Your task to perform on an android device: manage bookmarks in the chrome app Image 0: 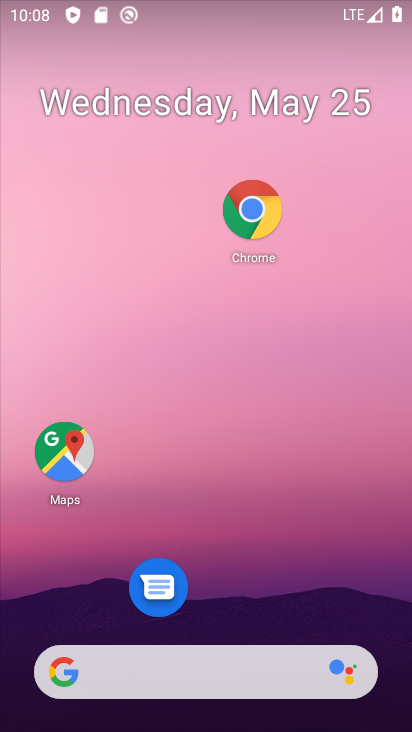
Step 0: click (256, 204)
Your task to perform on an android device: manage bookmarks in the chrome app Image 1: 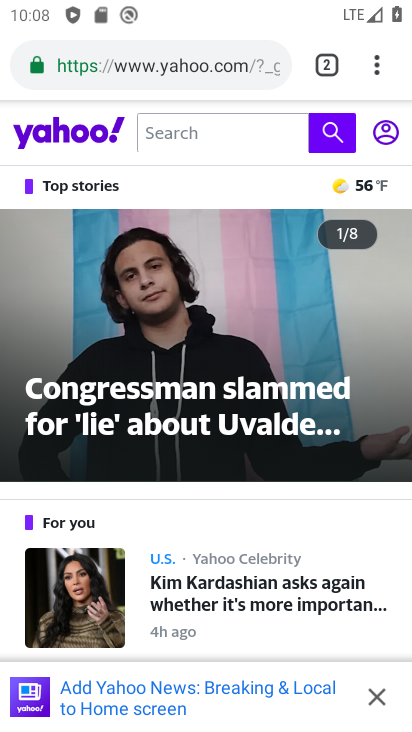
Step 1: click (384, 75)
Your task to perform on an android device: manage bookmarks in the chrome app Image 2: 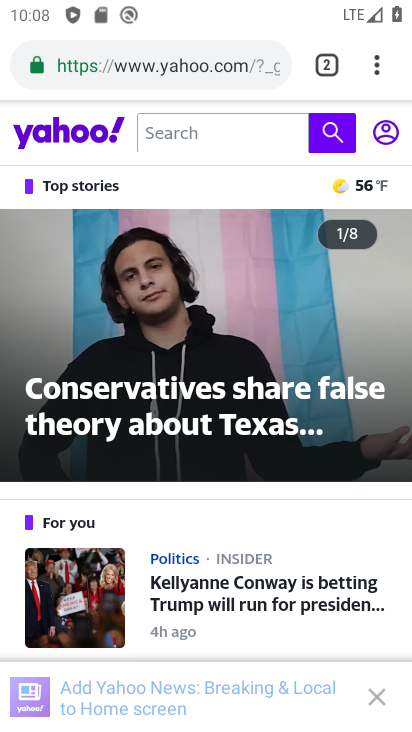
Step 2: click (377, 66)
Your task to perform on an android device: manage bookmarks in the chrome app Image 3: 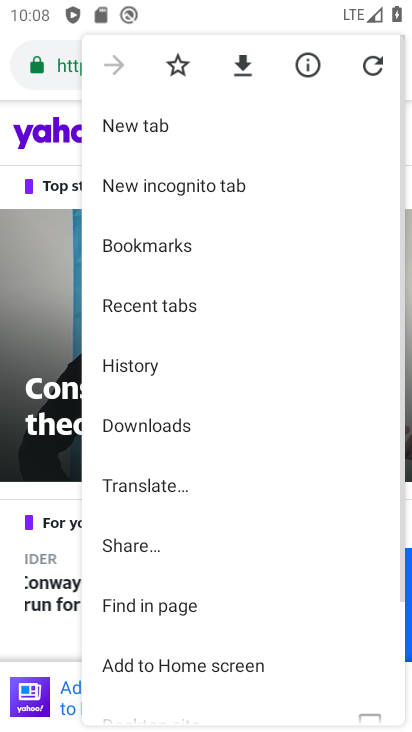
Step 3: click (188, 255)
Your task to perform on an android device: manage bookmarks in the chrome app Image 4: 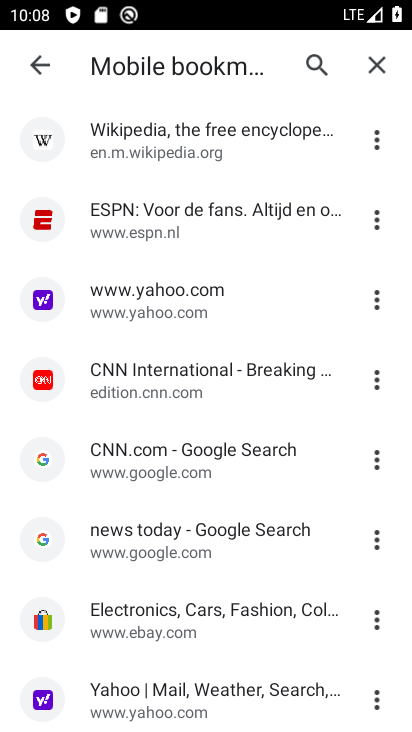
Step 4: click (383, 133)
Your task to perform on an android device: manage bookmarks in the chrome app Image 5: 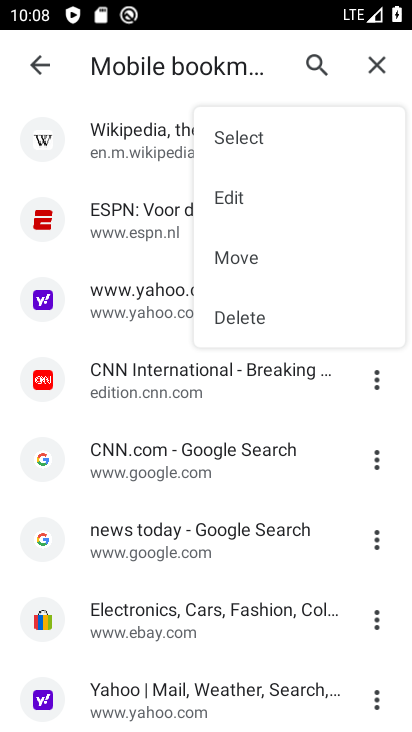
Step 5: click (243, 132)
Your task to perform on an android device: manage bookmarks in the chrome app Image 6: 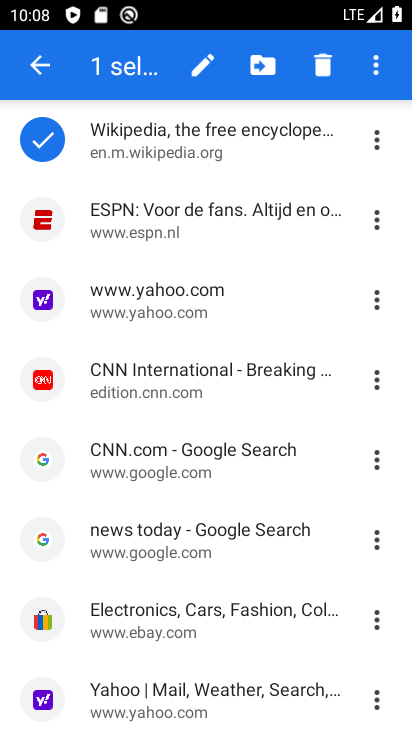
Step 6: drag from (69, 215) to (46, 306)
Your task to perform on an android device: manage bookmarks in the chrome app Image 7: 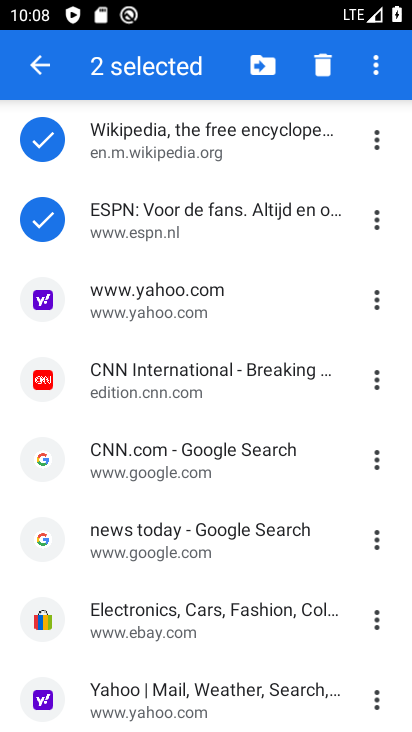
Step 7: click (41, 390)
Your task to perform on an android device: manage bookmarks in the chrome app Image 8: 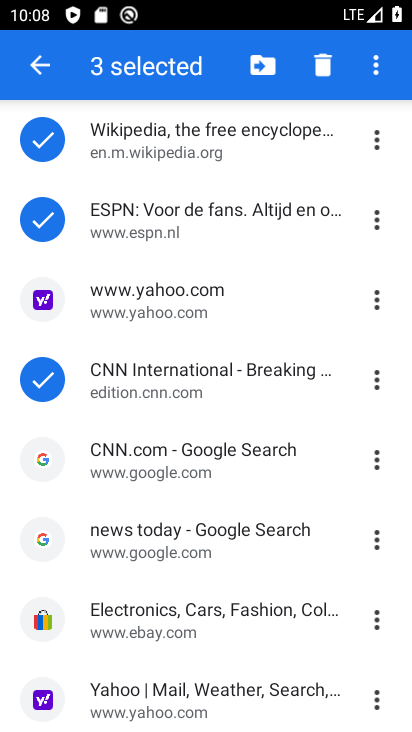
Step 8: click (40, 470)
Your task to perform on an android device: manage bookmarks in the chrome app Image 9: 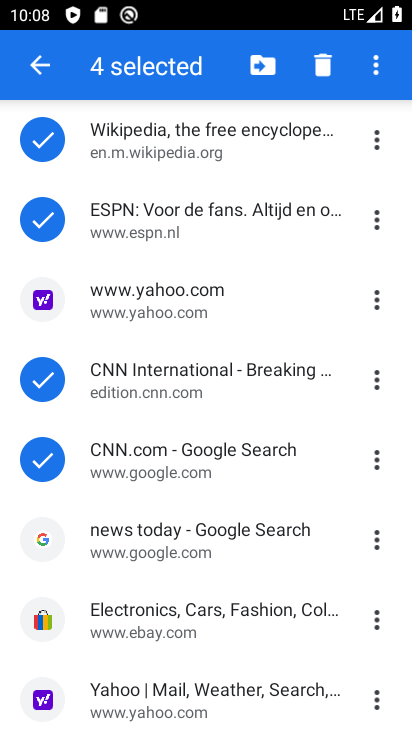
Step 9: click (53, 292)
Your task to perform on an android device: manage bookmarks in the chrome app Image 10: 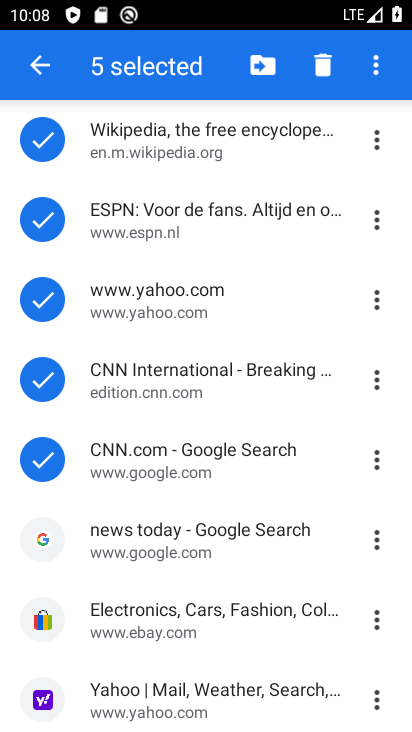
Step 10: click (40, 528)
Your task to perform on an android device: manage bookmarks in the chrome app Image 11: 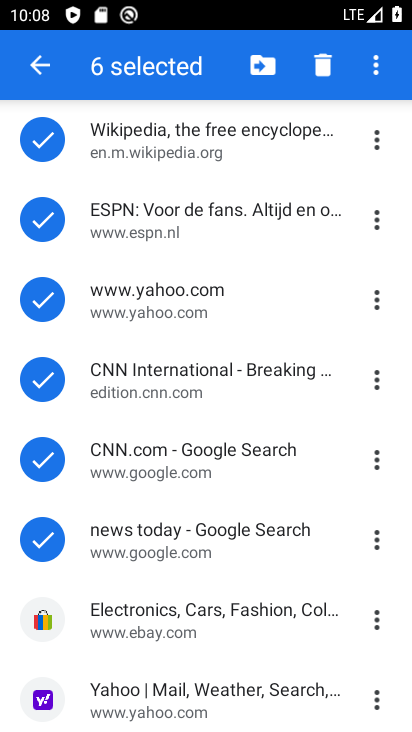
Step 11: click (39, 614)
Your task to perform on an android device: manage bookmarks in the chrome app Image 12: 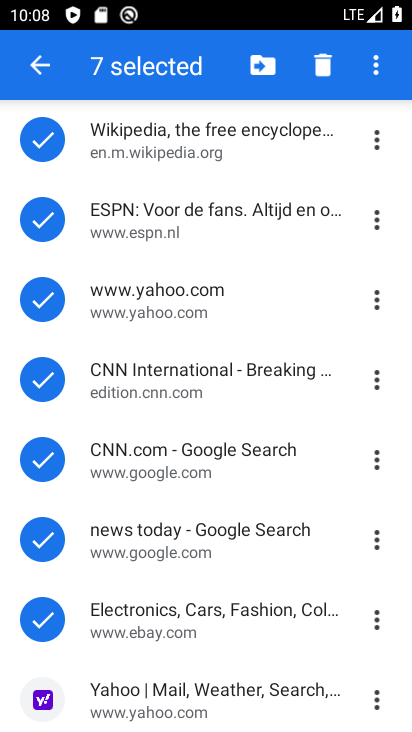
Step 12: drag from (48, 638) to (109, 269)
Your task to perform on an android device: manage bookmarks in the chrome app Image 13: 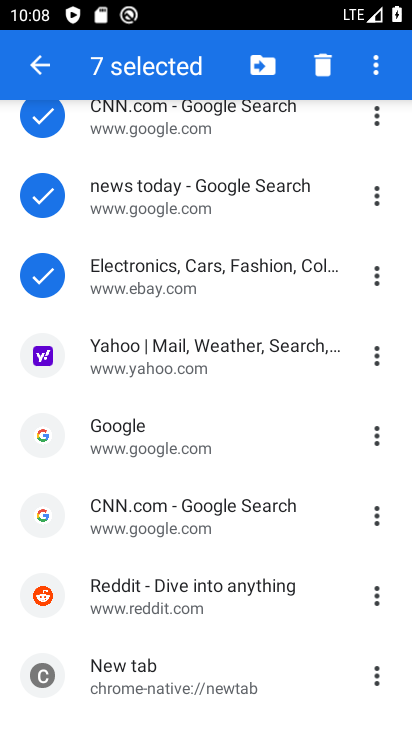
Step 13: click (42, 433)
Your task to perform on an android device: manage bookmarks in the chrome app Image 14: 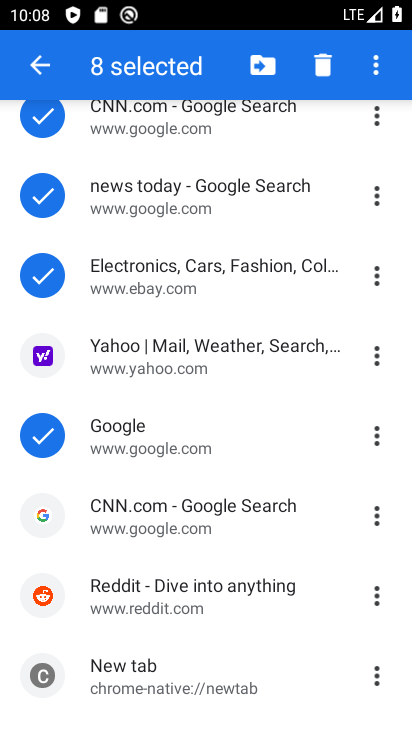
Step 14: click (36, 521)
Your task to perform on an android device: manage bookmarks in the chrome app Image 15: 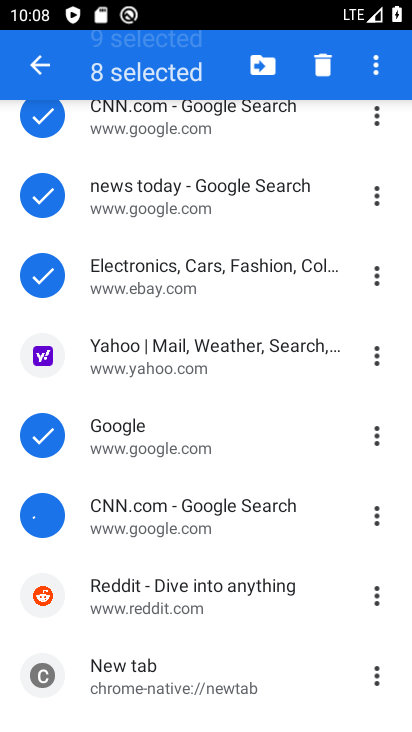
Step 15: click (35, 605)
Your task to perform on an android device: manage bookmarks in the chrome app Image 16: 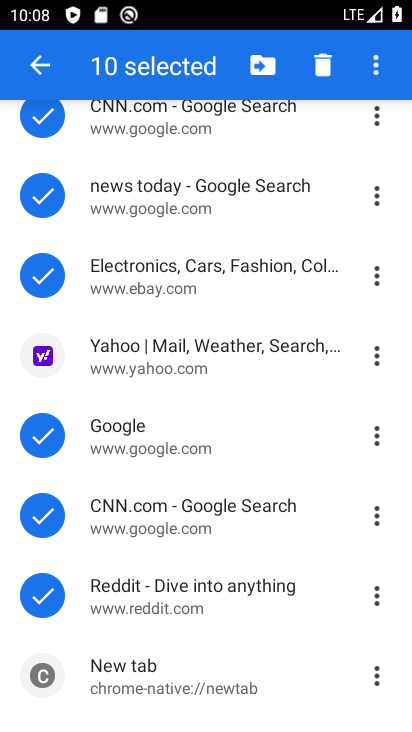
Step 16: click (38, 680)
Your task to perform on an android device: manage bookmarks in the chrome app Image 17: 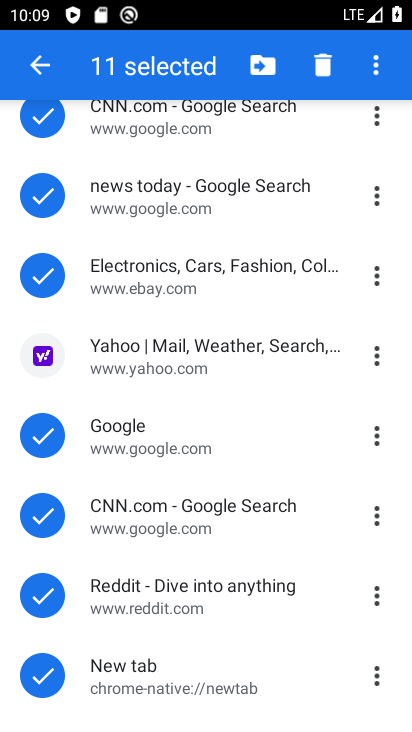
Step 17: click (257, 72)
Your task to perform on an android device: manage bookmarks in the chrome app Image 18: 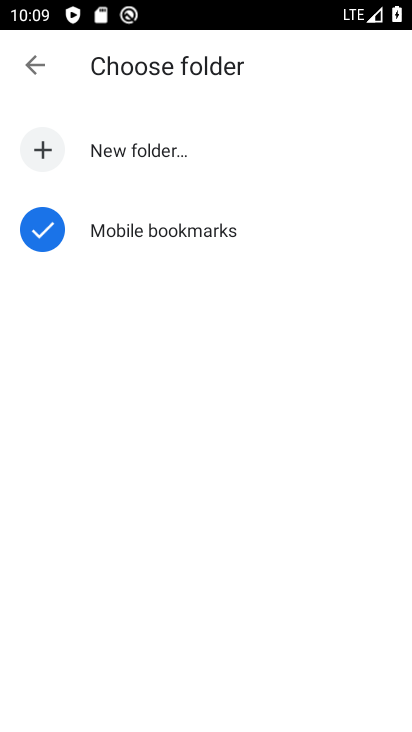
Step 18: click (149, 150)
Your task to perform on an android device: manage bookmarks in the chrome app Image 19: 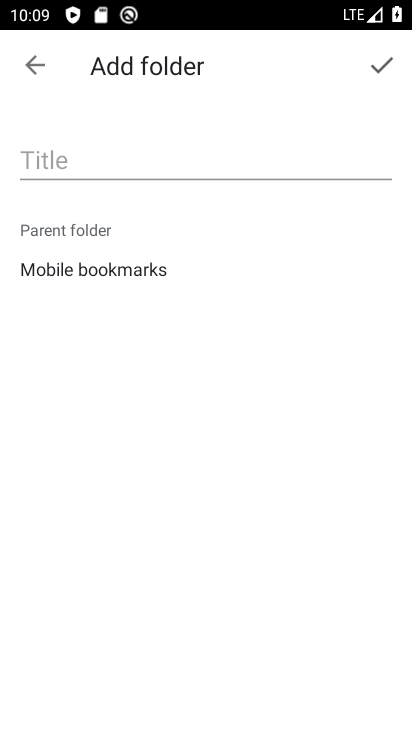
Step 19: click (77, 162)
Your task to perform on an android device: manage bookmarks in the chrome app Image 20: 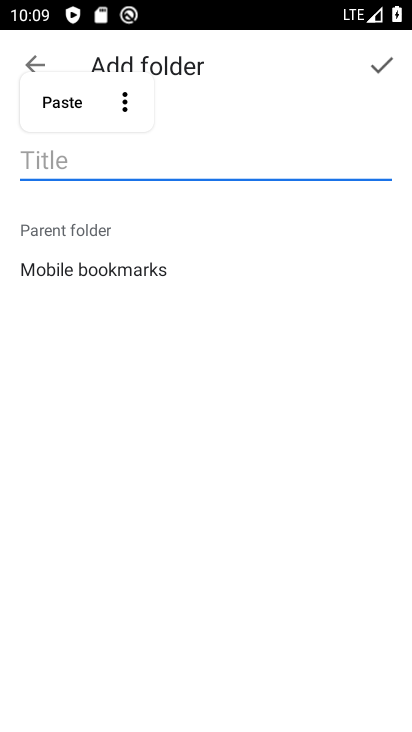
Step 20: type "roses"
Your task to perform on an android device: manage bookmarks in the chrome app Image 21: 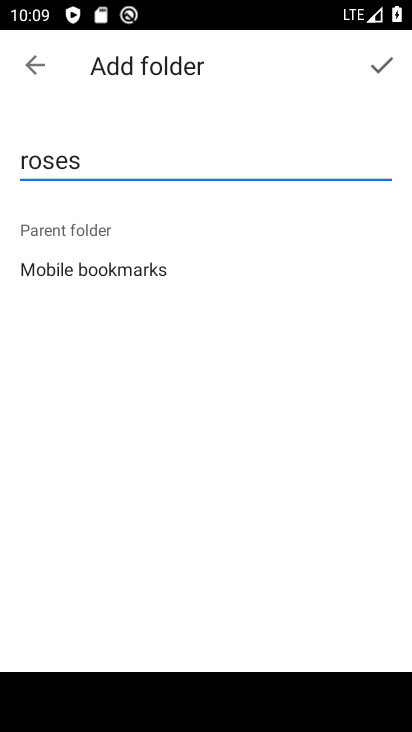
Step 21: click (387, 65)
Your task to perform on an android device: manage bookmarks in the chrome app Image 22: 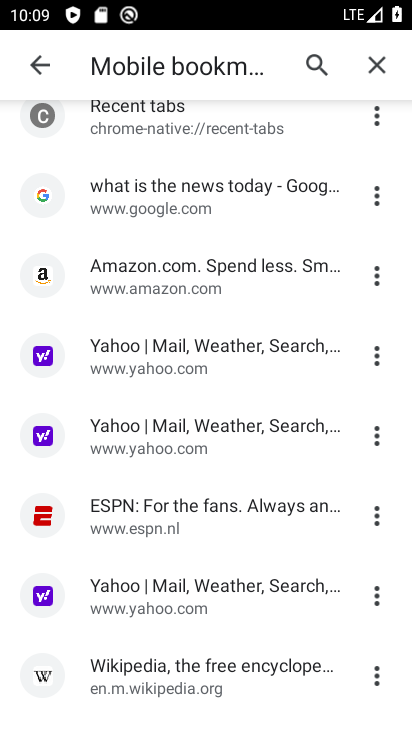
Step 22: task complete